Your task to perform on an android device: check storage Image 0: 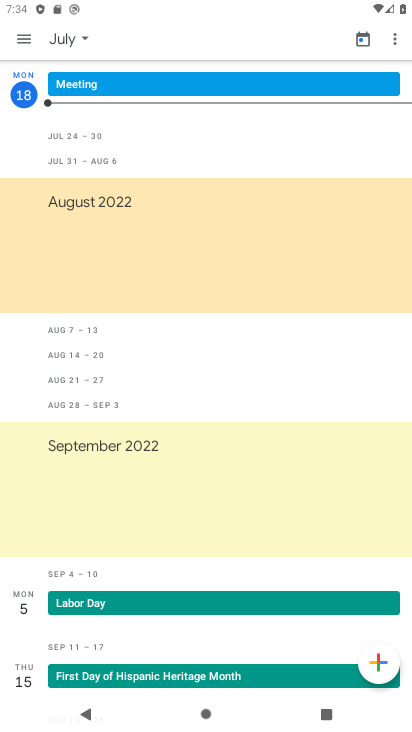
Step 0: press home button
Your task to perform on an android device: check storage Image 1: 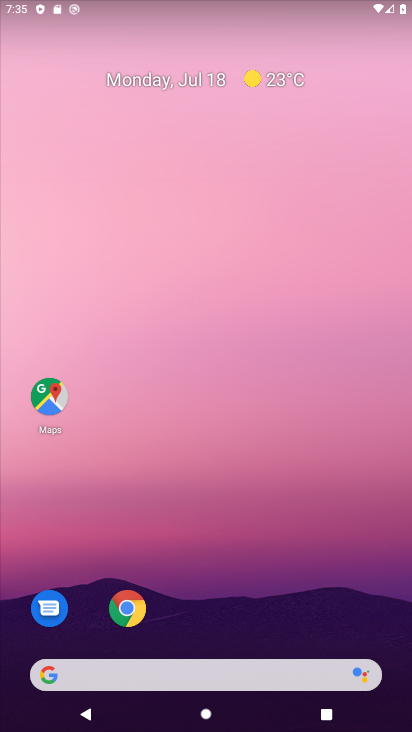
Step 1: drag from (211, 643) to (245, 11)
Your task to perform on an android device: check storage Image 2: 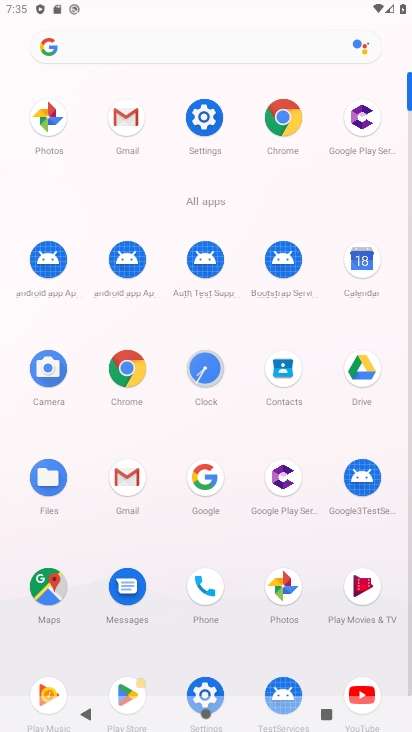
Step 2: drag from (196, 123) to (91, 170)
Your task to perform on an android device: check storage Image 3: 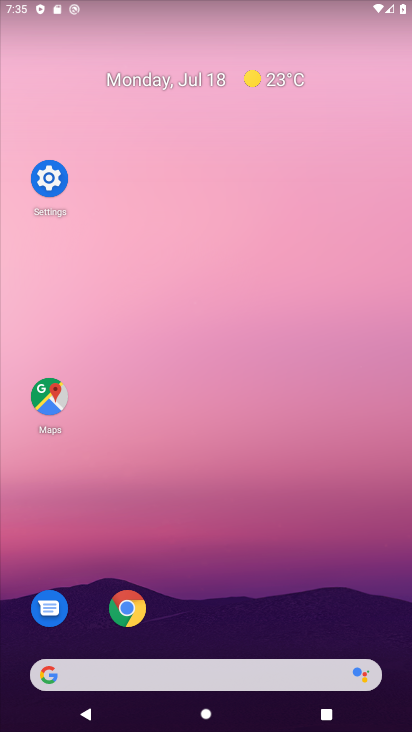
Step 3: click (51, 176)
Your task to perform on an android device: check storage Image 4: 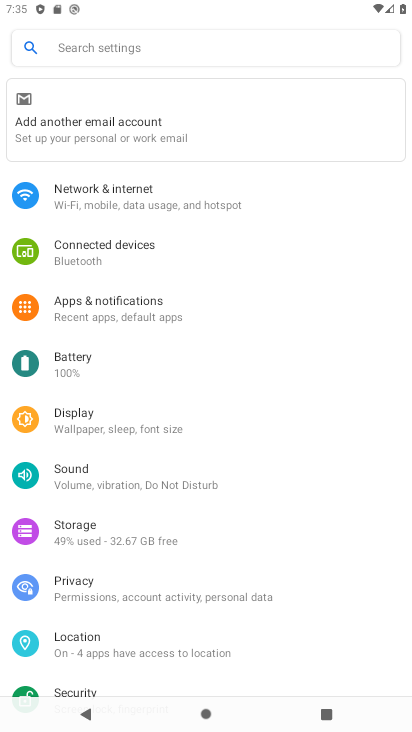
Step 4: click (58, 533)
Your task to perform on an android device: check storage Image 5: 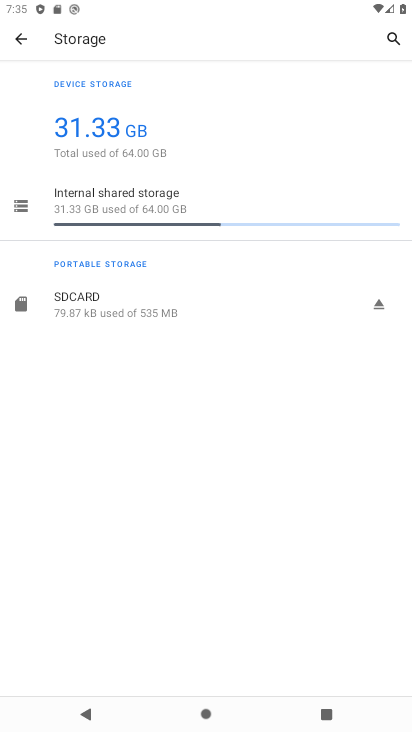
Step 5: task complete